Your task to perform on an android device: Open Google Chrome and click the shortcut for Amazon.com Image 0: 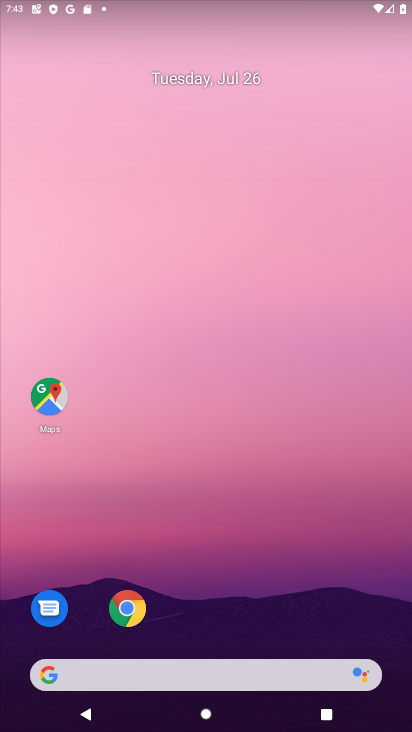
Step 0: drag from (281, 683) to (252, 391)
Your task to perform on an android device: Open Google Chrome and click the shortcut for Amazon.com Image 1: 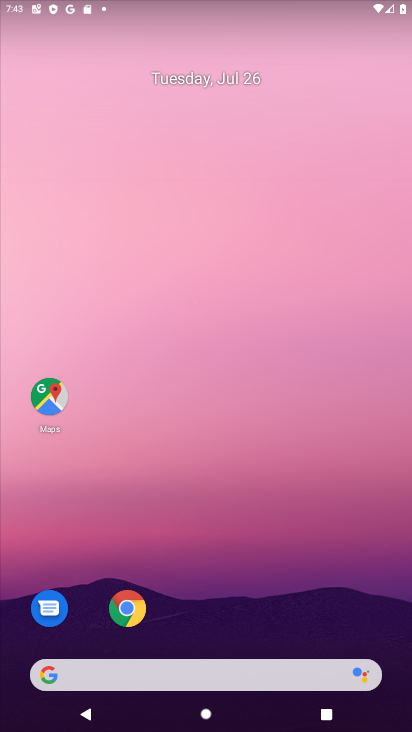
Step 1: drag from (269, 554) to (225, 202)
Your task to perform on an android device: Open Google Chrome and click the shortcut for Amazon.com Image 2: 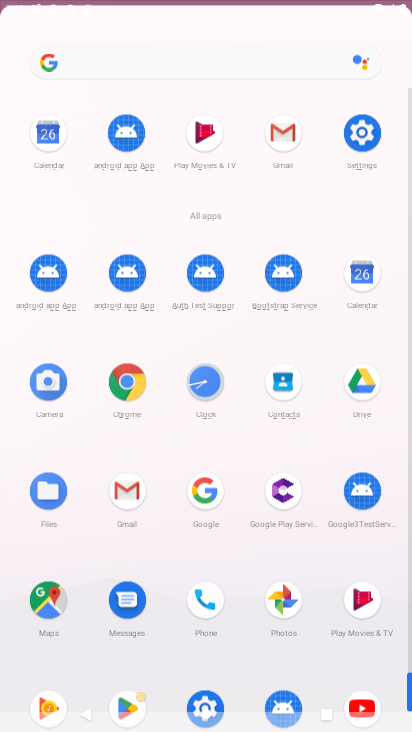
Step 2: drag from (222, 640) to (202, 106)
Your task to perform on an android device: Open Google Chrome and click the shortcut for Amazon.com Image 3: 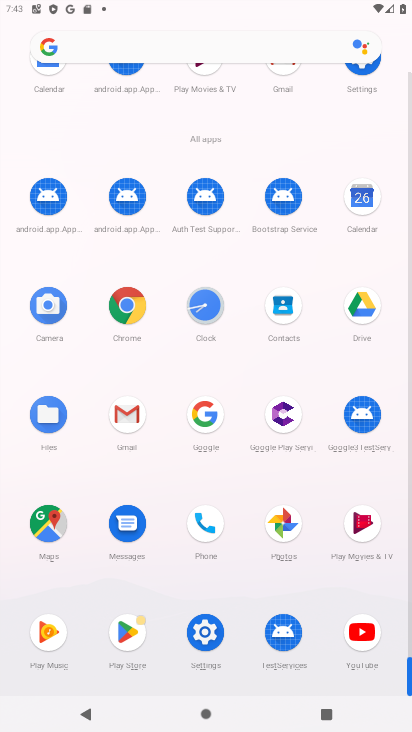
Step 3: click (123, 305)
Your task to perform on an android device: Open Google Chrome and click the shortcut for Amazon.com Image 4: 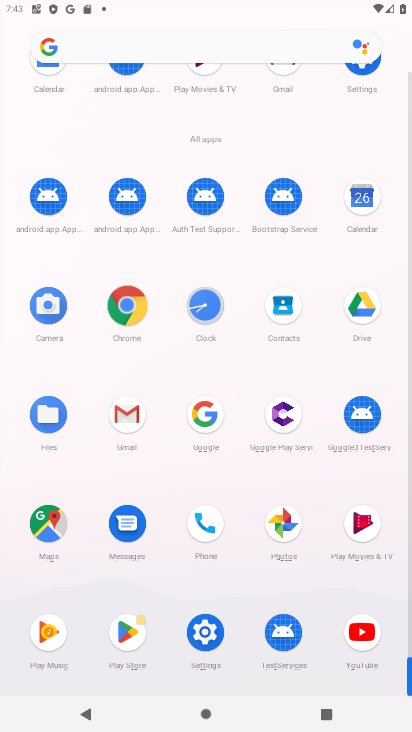
Step 4: click (123, 305)
Your task to perform on an android device: Open Google Chrome and click the shortcut for Amazon.com Image 5: 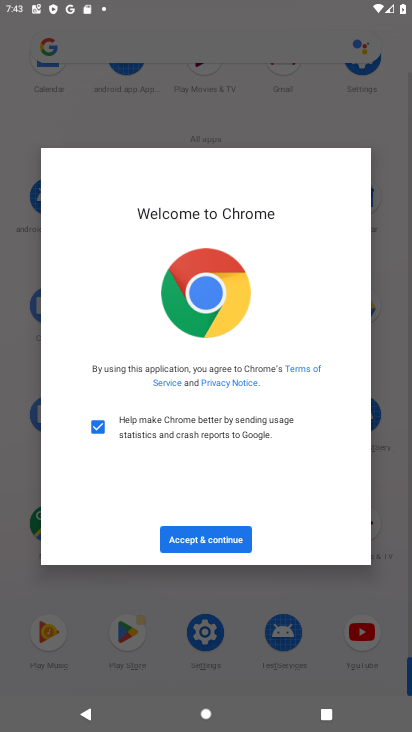
Step 5: click (196, 532)
Your task to perform on an android device: Open Google Chrome and click the shortcut for Amazon.com Image 6: 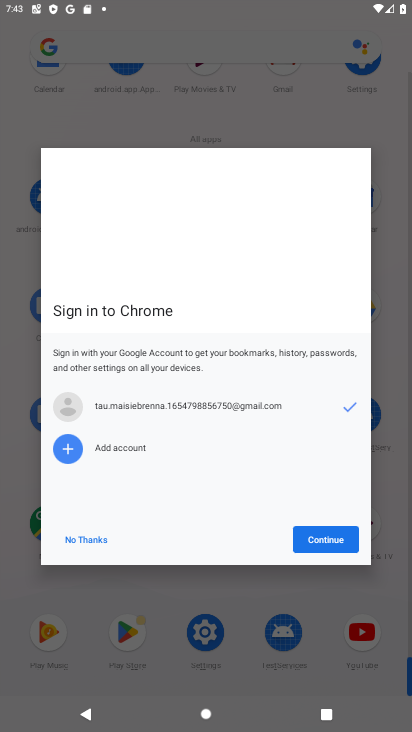
Step 6: click (205, 522)
Your task to perform on an android device: Open Google Chrome and click the shortcut for Amazon.com Image 7: 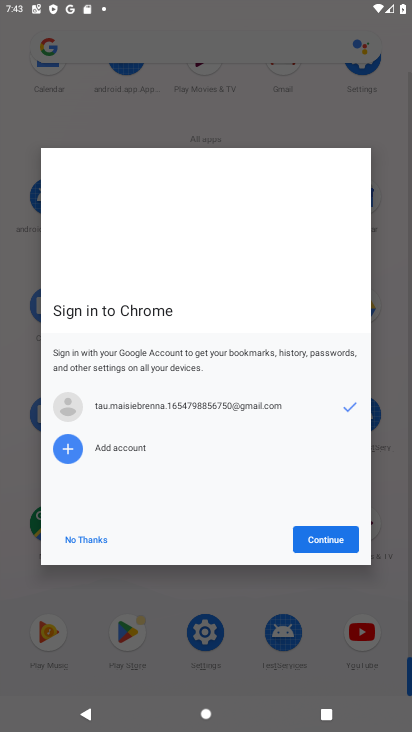
Step 7: click (73, 528)
Your task to perform on an android device: Open Google Chrome and click the shortcut for Amazon.com Image 8: 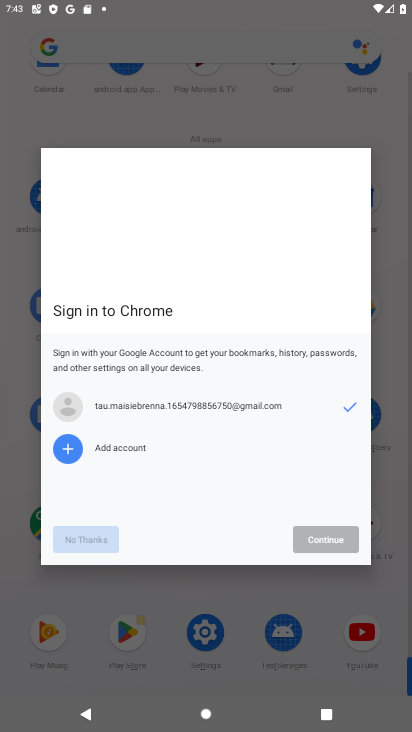
Step 8: click (73, 529)
Your task to perform on an android device: Open Google Chrome and click the shortcut for Amazon.com Image 9: 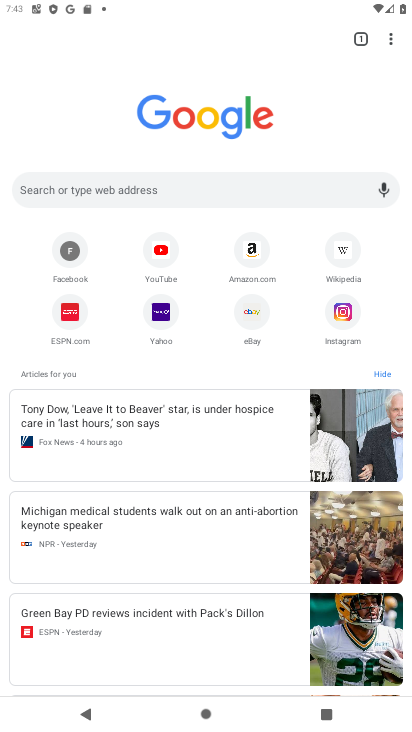
Step 9: click (247, 254)
Your task to perform on an android device: Open Google Chrome and click the shortcut for Amazon.com Image 10: 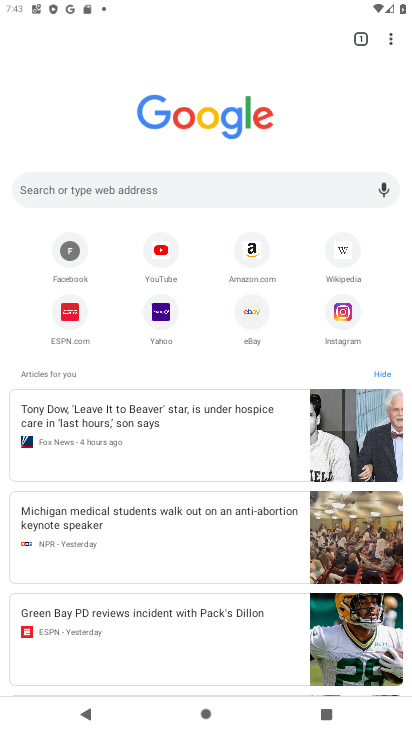
Step 10: click (247, 254)
Your task to perform on an android device: Open Google Chrome and click the shortcut for Amazon.com Image 11: 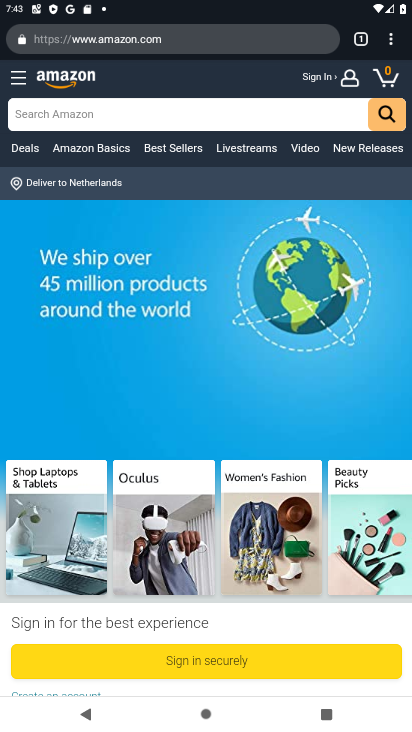
Step 11: task complete